Your task to perform on an android device: toggle notifications settings in the gmail app Image 0: 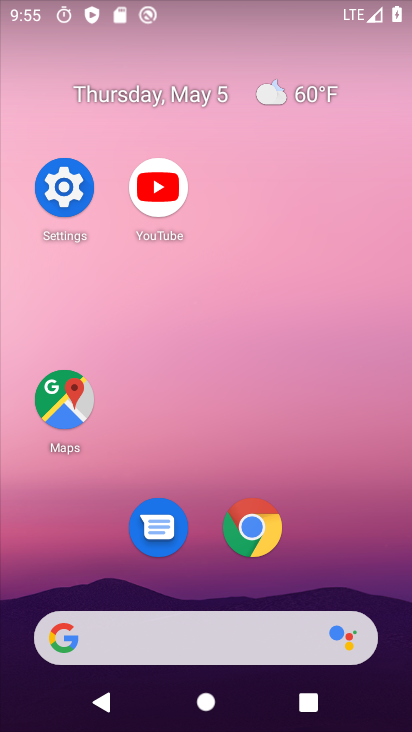
Step 0: drag from (323, 523) to (275, 135)
Your task to perform on an android device: toggle notifications settings in the gmail app Image 1: 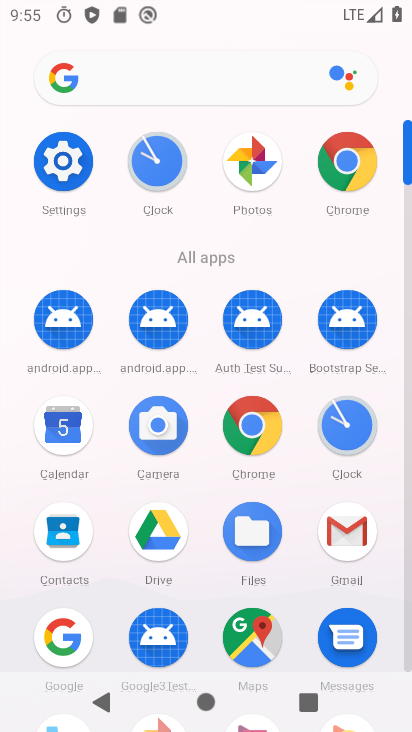
Step 1: click (337, 533)
Your task to perform on an android device: toggle notifications settings in the gmail app Image 2: 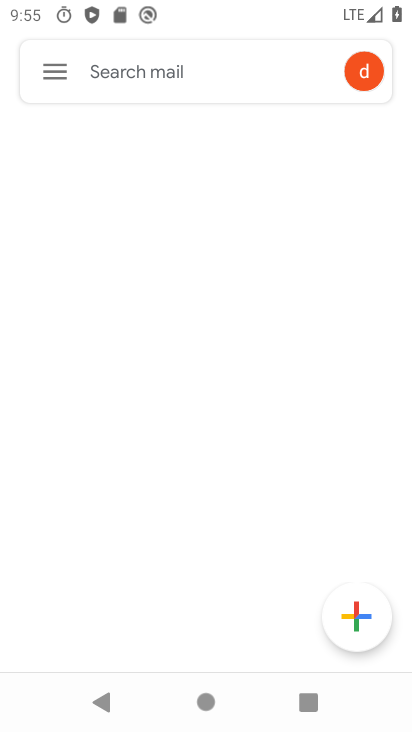
Step 2: click (47, 73)
Your task to perform on an android device: toggle notifications settings in the gmail app Image 3: 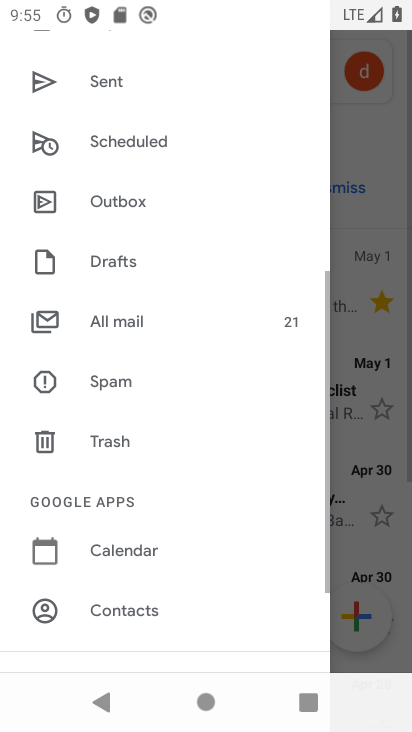
Step 3: drag from (174, 412) to (203, 159)
Your task to perform on an android device: toggle notifications settings in the gmail app Image 4: 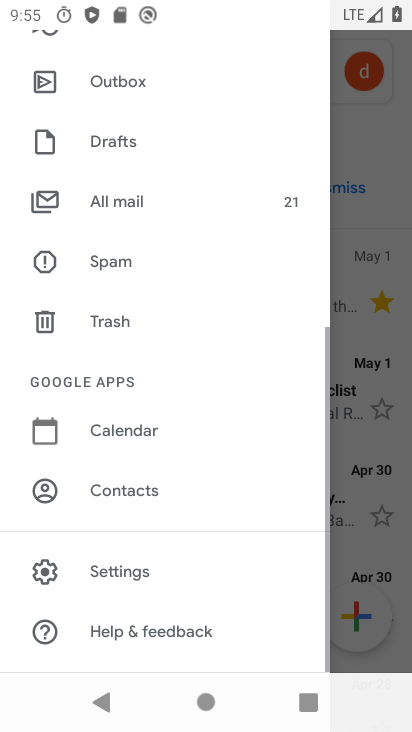
Step 4: click (180, 564)
Your task to perform on an android device: toggle notifications settings in the gmail app Image 5: 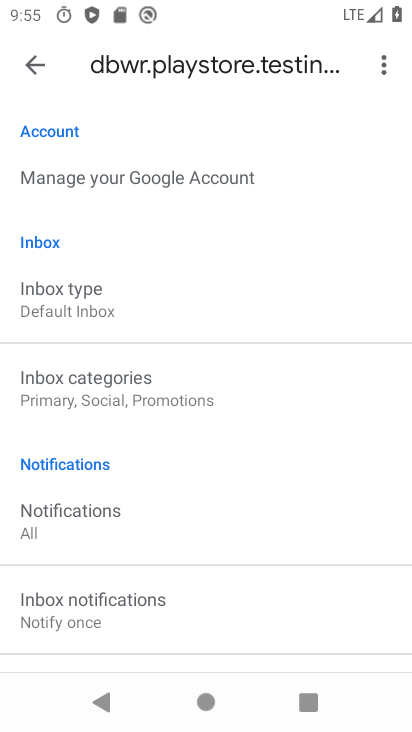
Step 5: click (131, 515)
Your task to perform on an android device: toggle notifications settings in the gmail app Image 6: 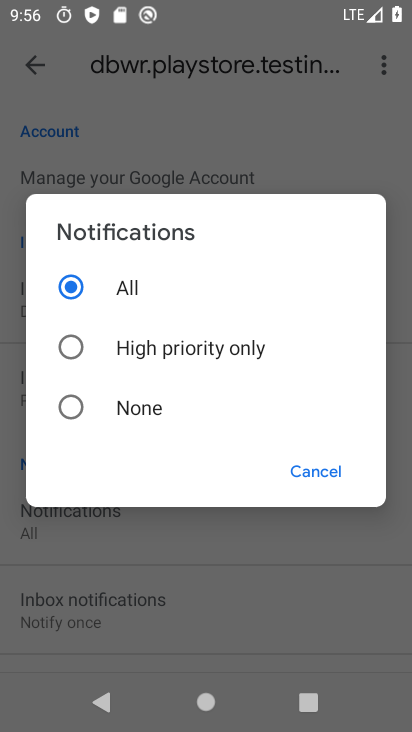
Step 6: click (187, 356)
Your task to perform on an android device: toggle notifications settings in the gmail app Image 7: 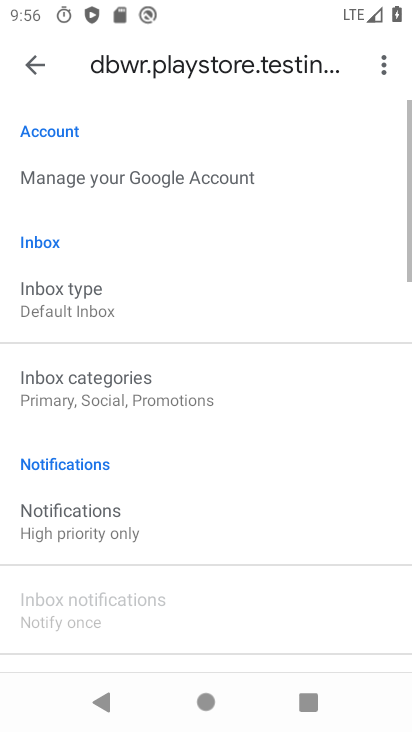
Step 7: task complete